Your task to perform on an android device: What's the weather today? Image 0: 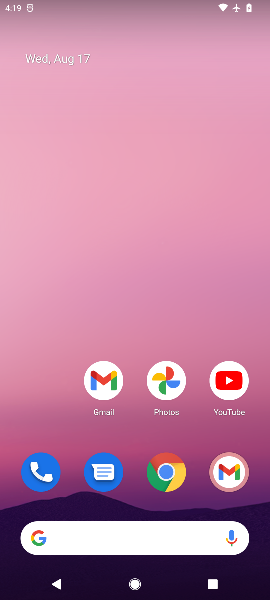
Step 0: click (122, 535)
Your task to perform on an android device: What's the weather today? Image 1: 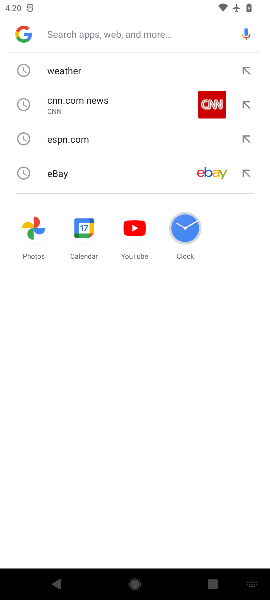
Step 1: click (94, 72)
Your task to perform on an android device: What's the weather today? Image 2: 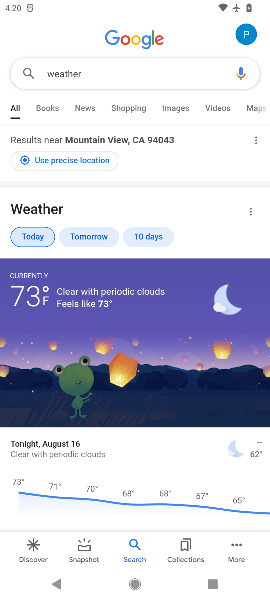
Step 2: task complete